Your task to perform on an android device: toggle notifications settings in the gmail app Image 0: 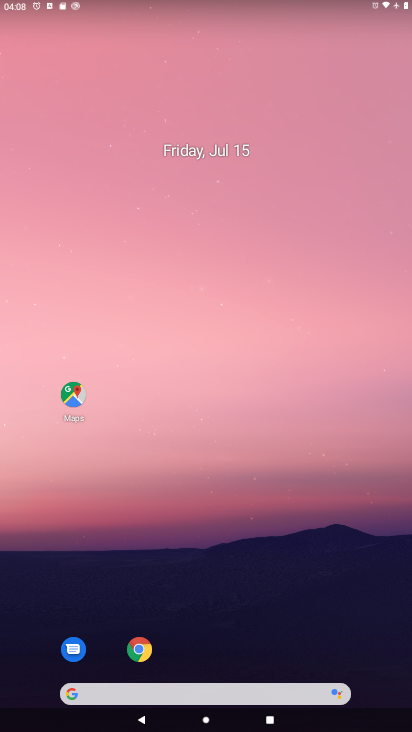
Step 0: drag from (373, 662) to (334, 115)
Your task to perform on an android device: toggle notifications settings in the gmail app Image 1: 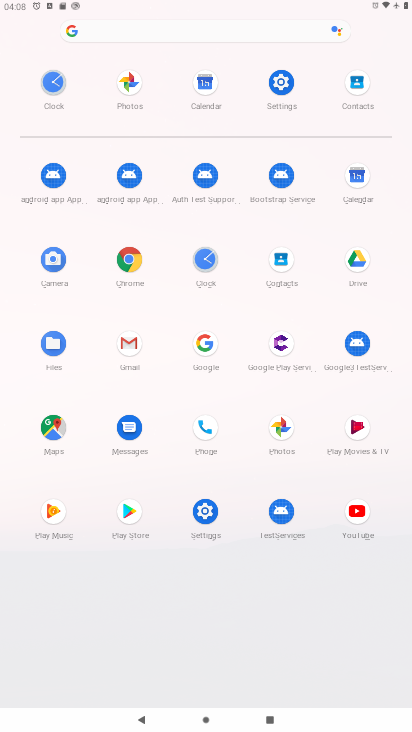
Step 1: click (126, 343)
Your task to perform on an android device: toggle notifications settings in the gmail app Image 2: 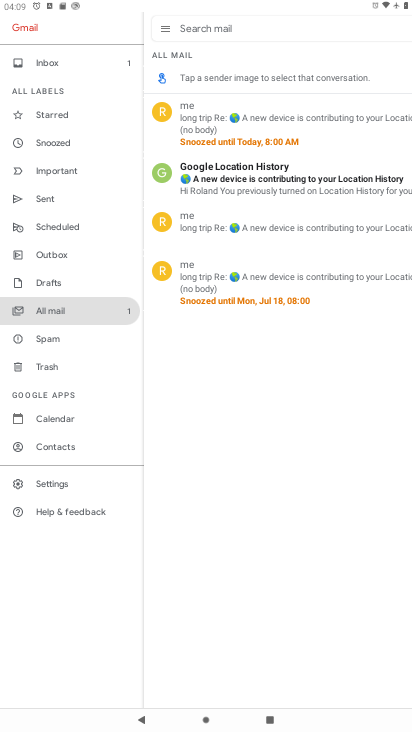
Step 2: click (59, 476)
Your task to perform on an android device: toggle notifications settings in the gmail app Image 3: 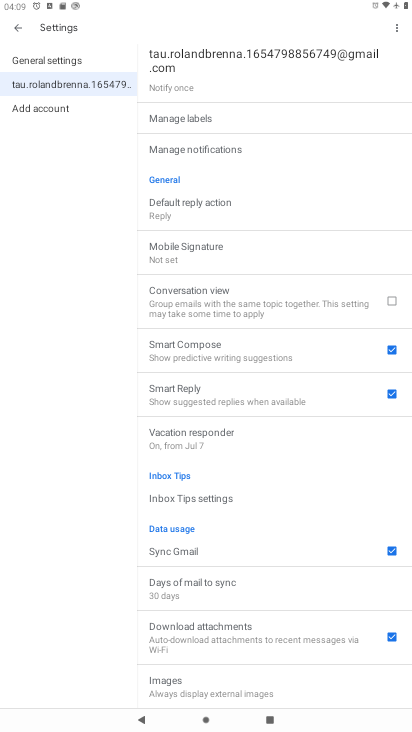
Step 3: click (195, 149)
Your task to perform on an android device: toggle notifications settings in the gmail app Image 4: 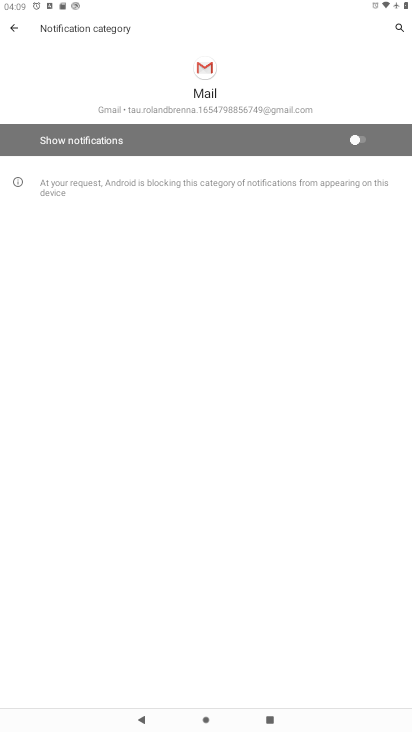
Step 4: click (359, 138)
Your task to perform on an android device: toggle notifications settings in the gmail app Image 5: 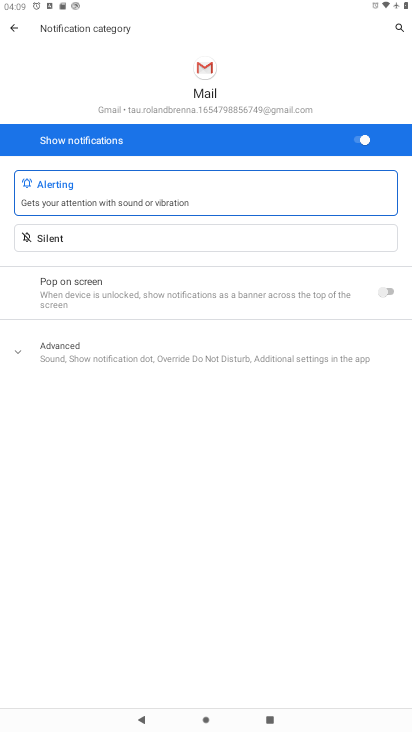
Step 5: task complete